Your task to perform on an android device: Search for "usb-a to usb-b" on costco.com, select the first entry, and add it to the cart. Image 0: 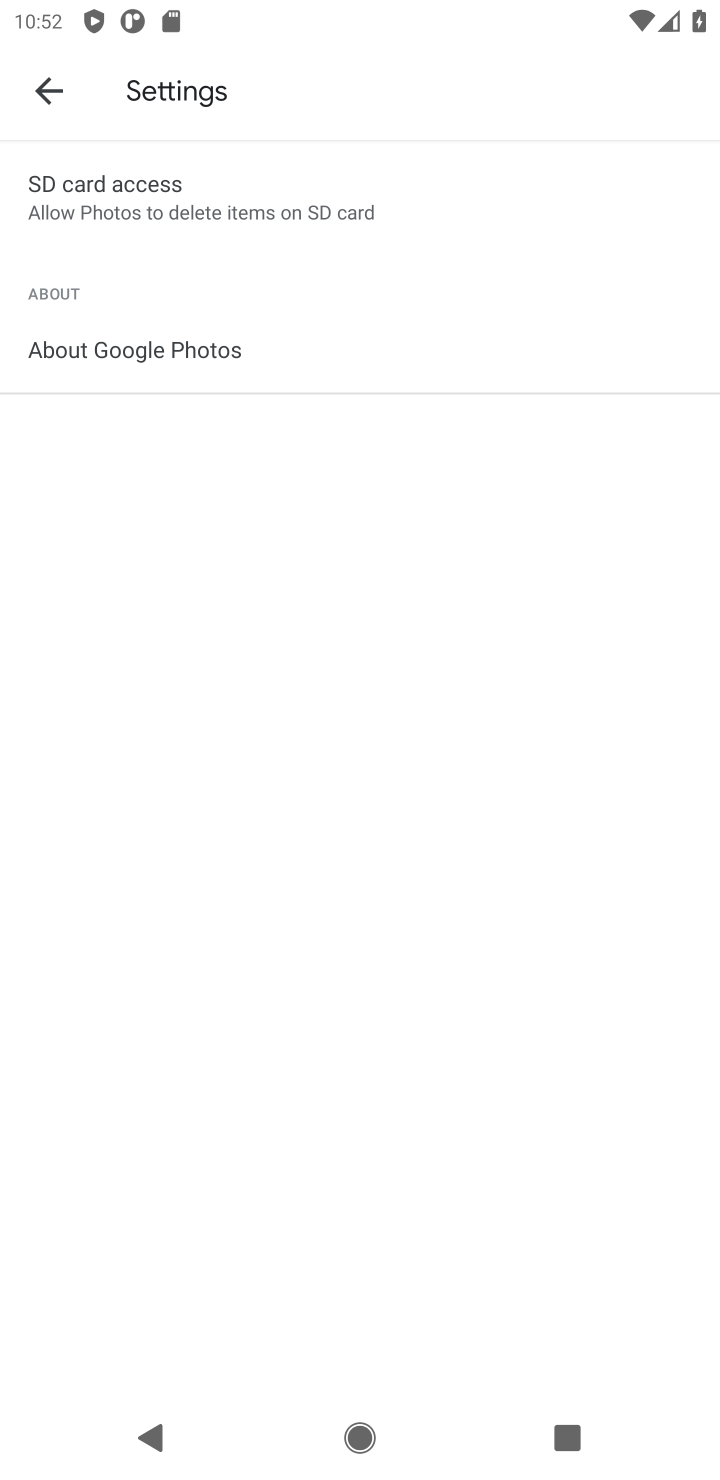
Step 0: press home button
Your task to perform on an android device: Search for "usb-a to usb-b" on costco.com, select the first entry, and add it to the cart. Image 1: 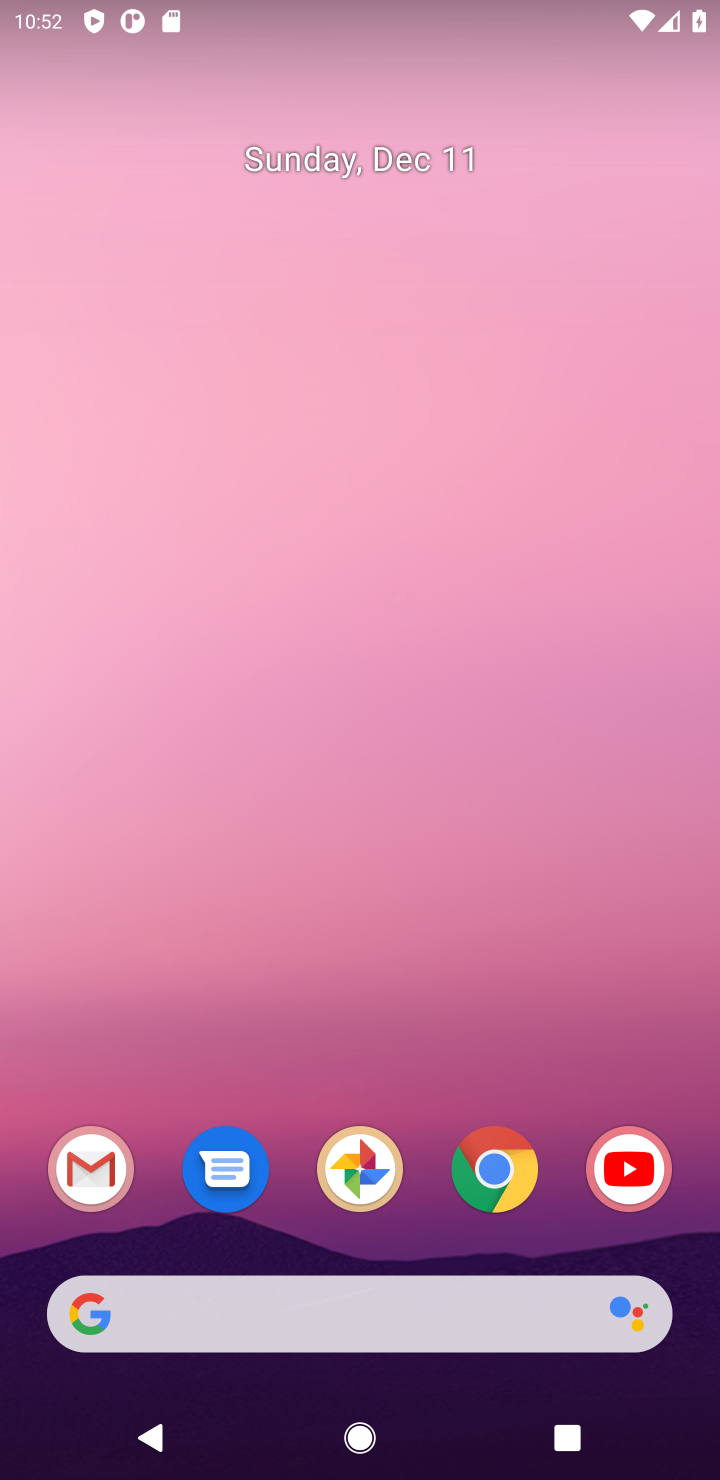
Step 1: click (512, 1173)
Your task to perform on an android device: Search for "usb-a to usb-b" on costco.com, select the first entry, and add it to the cart. Image 2: 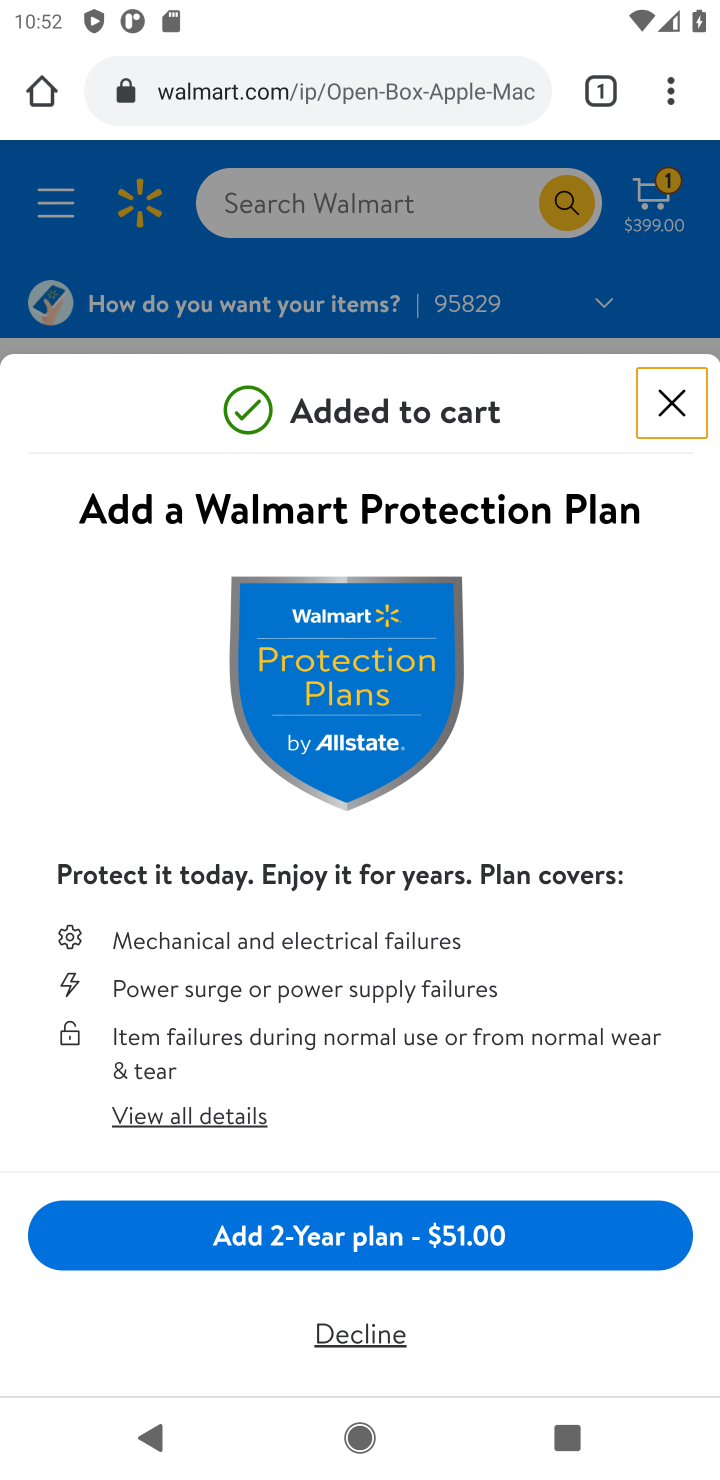
Step 2: click (284, 95)
Your task to perform on an android device: Search for "usb-a to usb-b" on costco.com, select the first entry, and add it to the cart. Image 3: 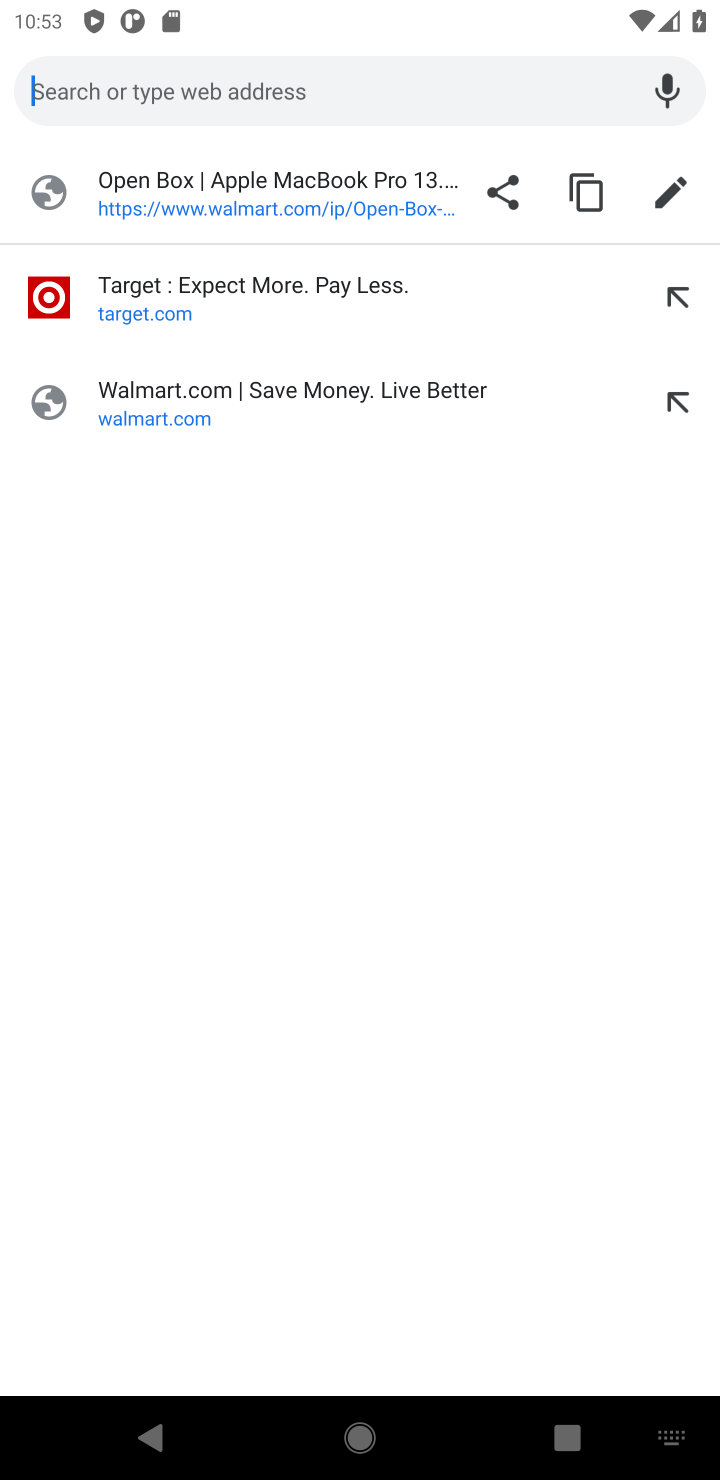
Step 3: type "costco.com"
Your task to perform on an android device: Search for "usb-a to usb-b" on costco.com, select the first entry, and add it to the cart. Image 4: 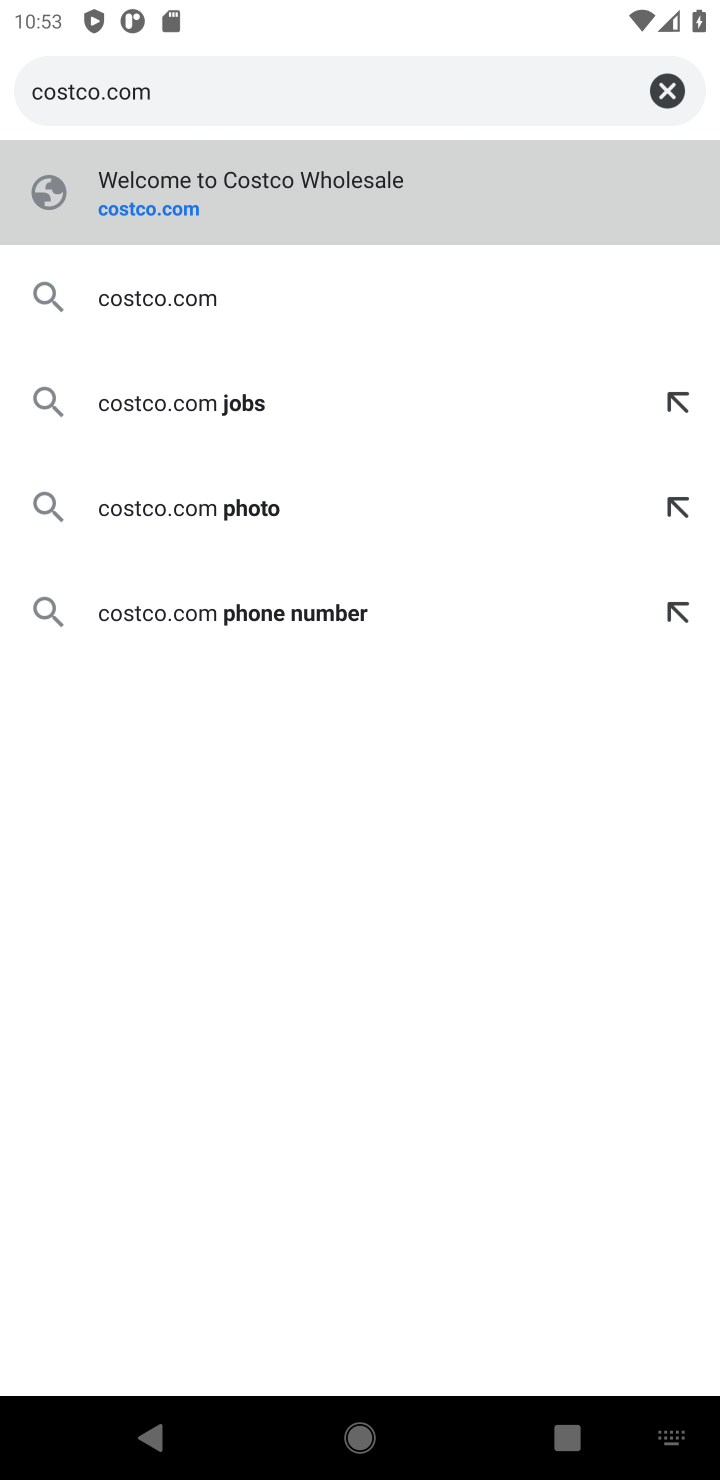
Step 4: click (156, 224)
Your task to perform on an android device: Search for "usb-a to usb-b" on costco.com, select the first entry, and add it to the cart. Image 5: 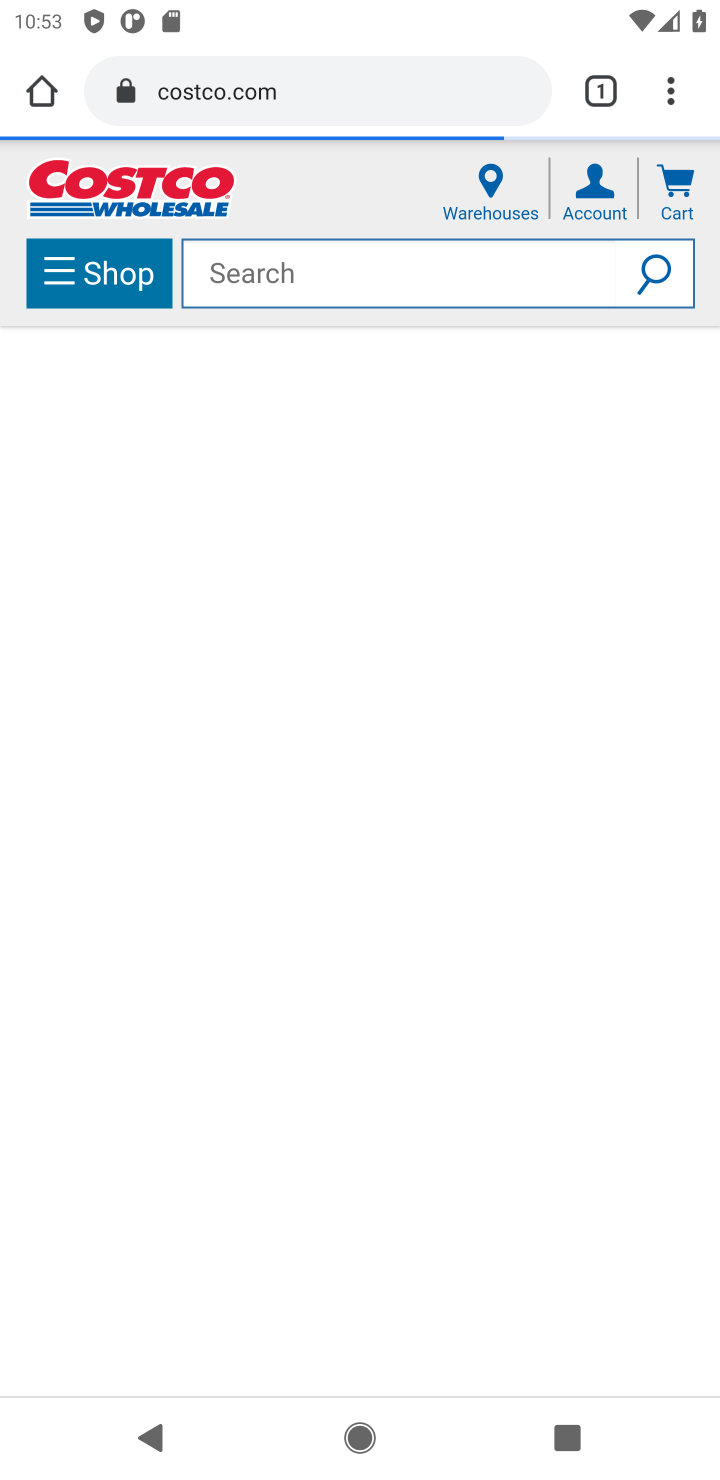
Step 5: click (258, 282)
Your task to perform on an android device: Search for "usb-a to usb-b" on costco.com, select the first entry, and add it to the cart. Image 6: 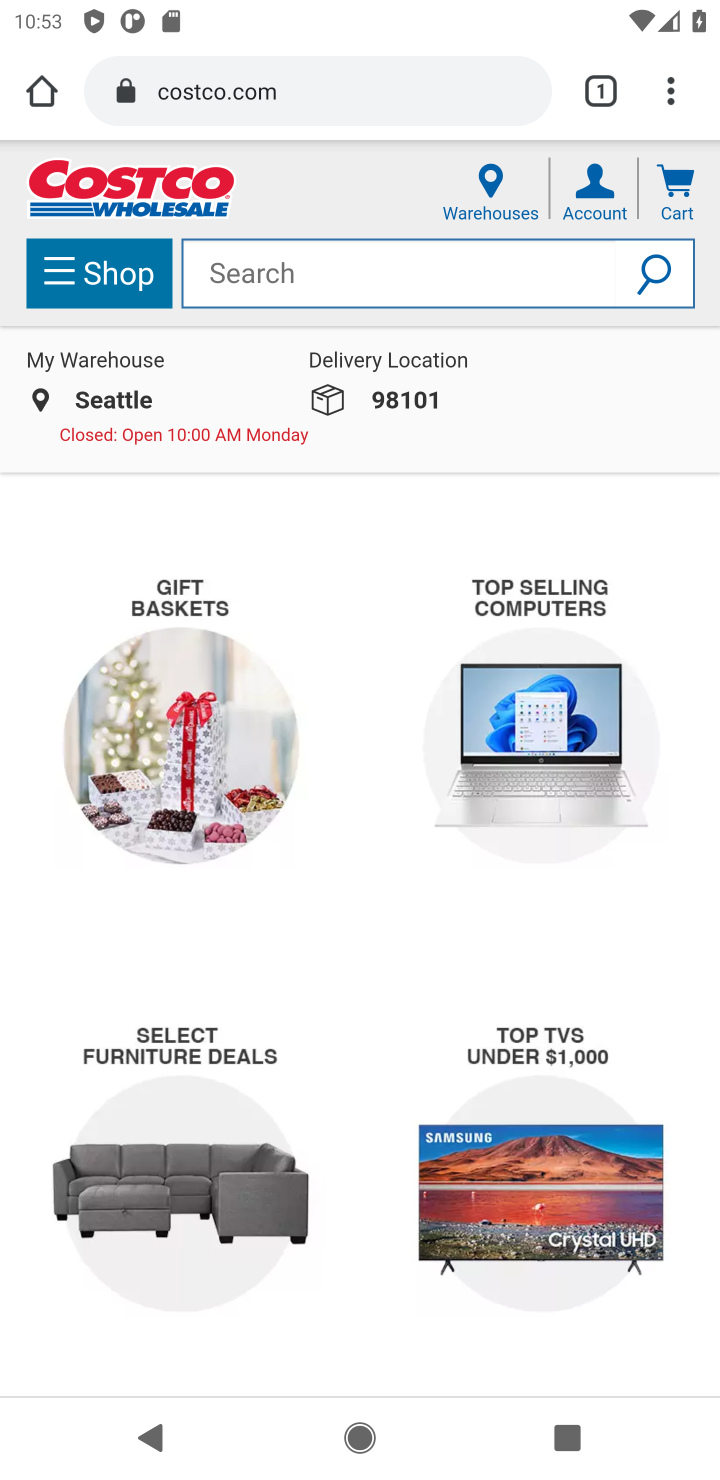
Step 6: click (258, 282)
Your task to perform on an android device: Search for "usb-a to usb-b" on costco.com, select the first entry, and add it to the cart. Image 7: 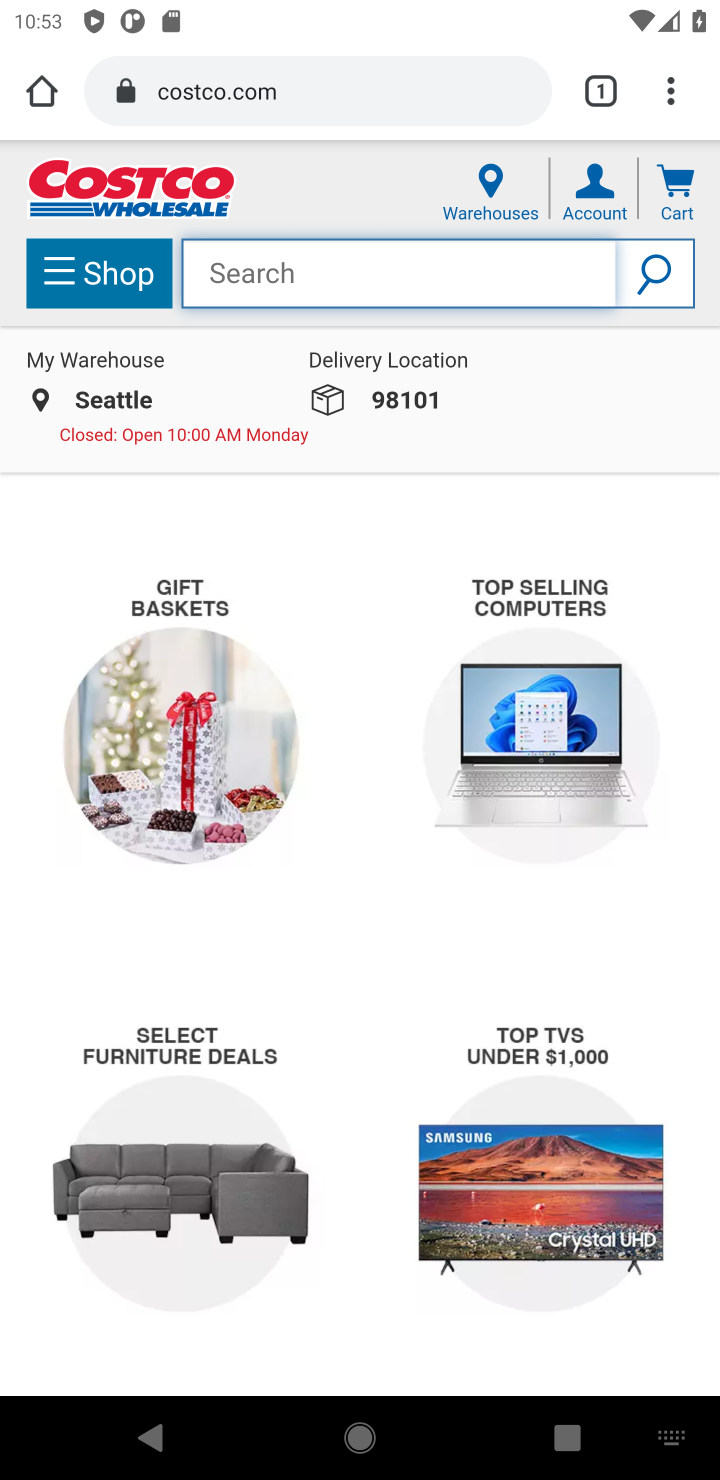
Step 7: type "usb-a to usb-b"
Your task to perform on an android device: Search for "usb-a to usb-b" on costco.com, select the first entry, and add it to the cart. Image 8: 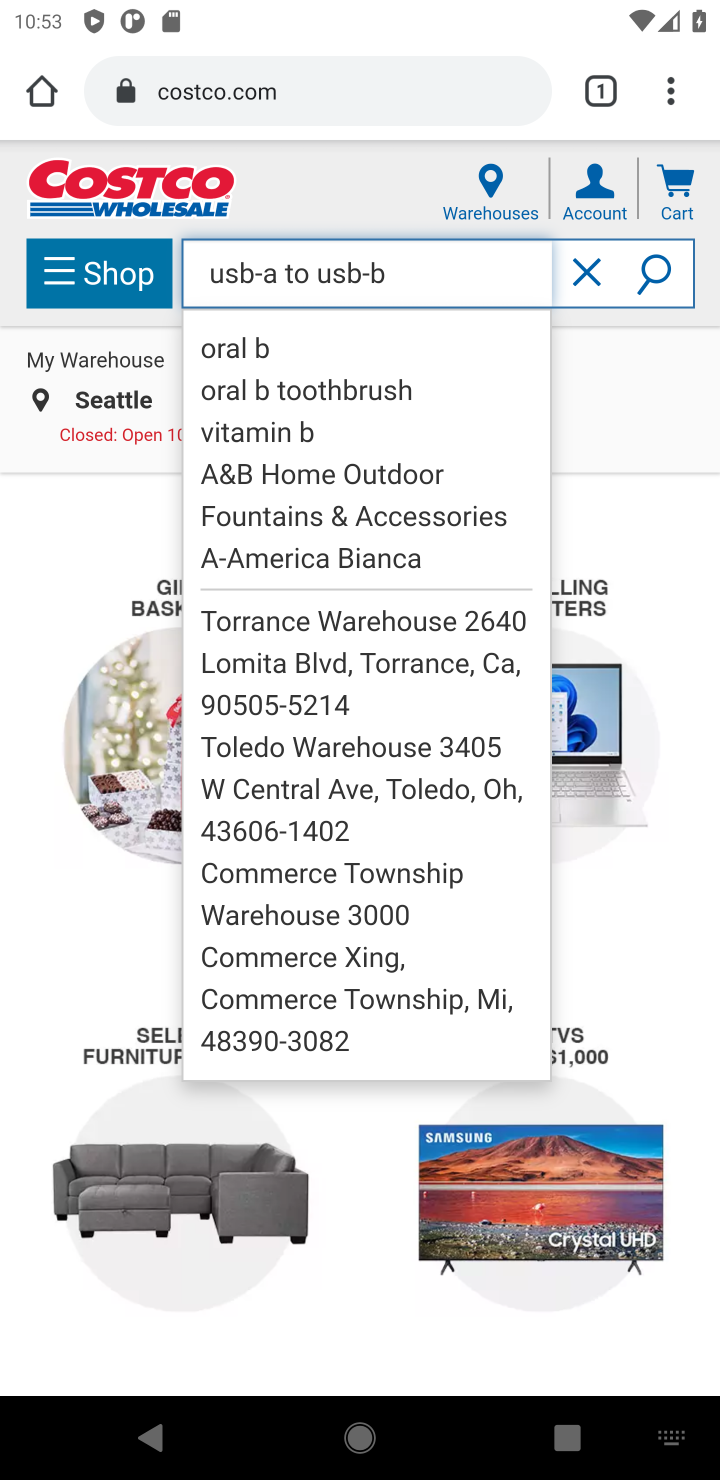
Step 8: click (668, 283)
Your task to perform on an android device: Search for "usb-a to usb-b" on costco.com, select the first entry, and add it to the cart. Image 9: 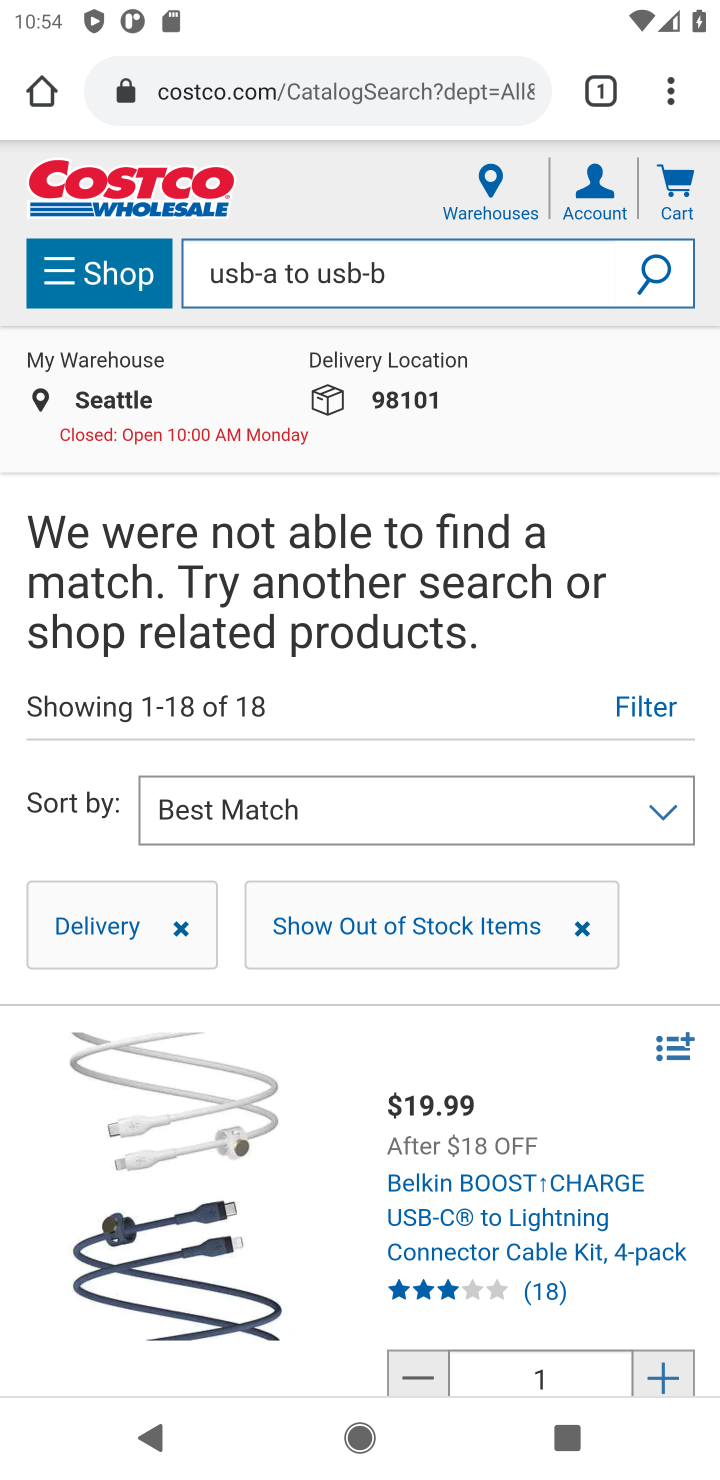
Step 9: task complete